Your task to perform on an android device: What is the news today? Image 0: 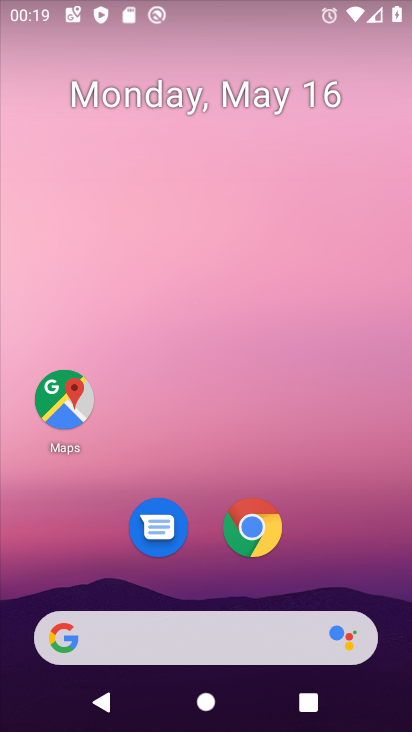
Step 0: click (234, 637)
Your task to perform on an android device: What is the news today? Image 1: 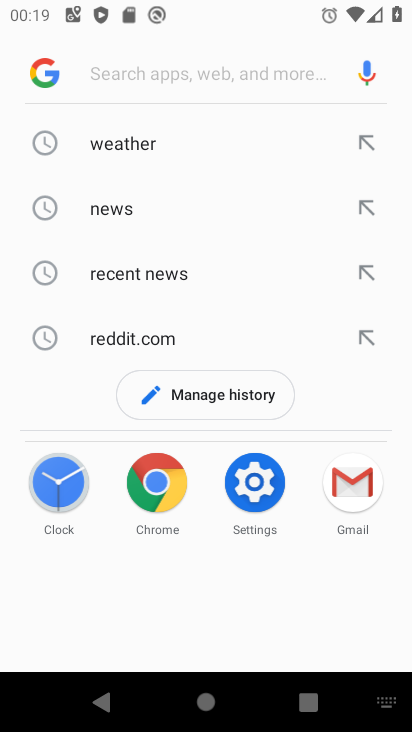
Step 1: click (178, 157)
Your task to perform on an android device: What is the news today? Image 2: 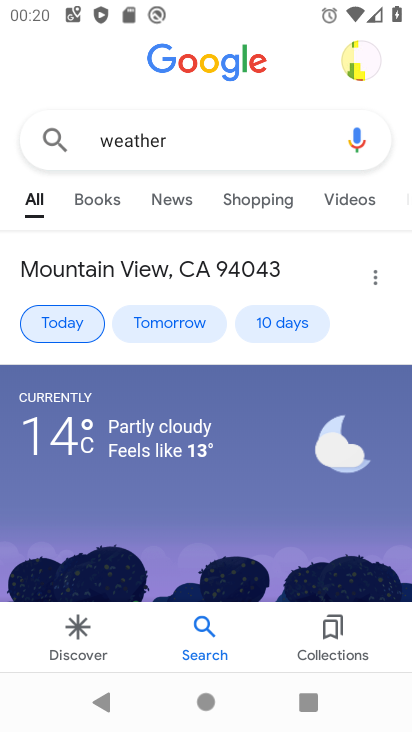
Step 2: task complete